Your task to perform on an android device: toggle sleep mode Image 0: 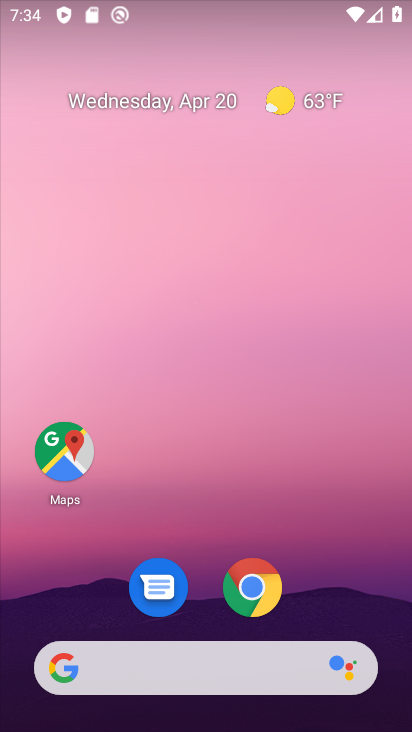
Step 0: drag from (309, 7) to (323, 672)
Your task to perform on an android device: toggle sleep mode Image 1: 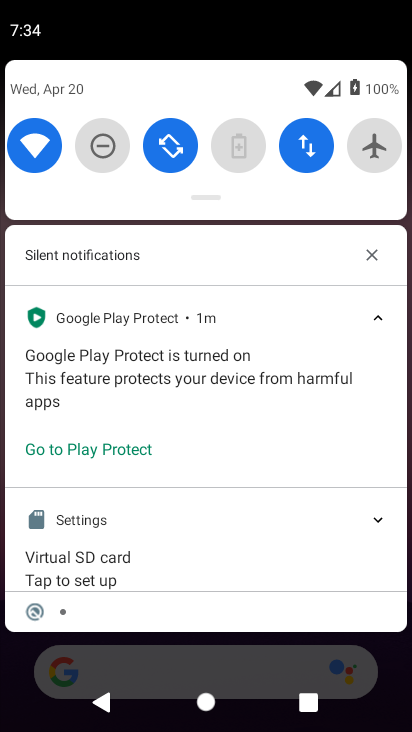
Step 1: drag from (281, 78) to (328, 533)
Your task to perform on an android device: toggle sleep mode Image 2: 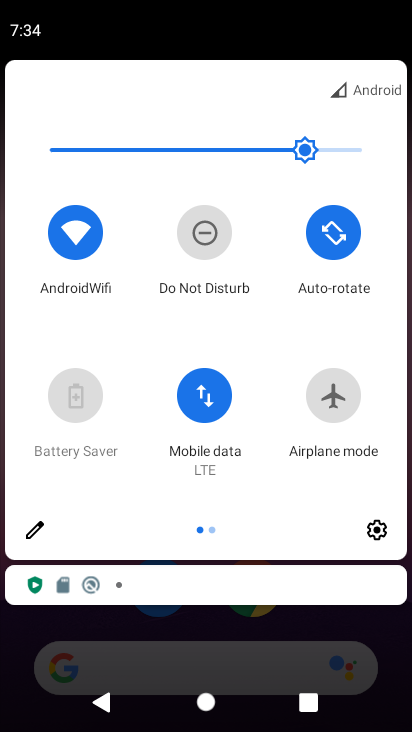
Step 2: click (377, 527)
Your task to perform on an android device: toggle sleep mode Image 3: 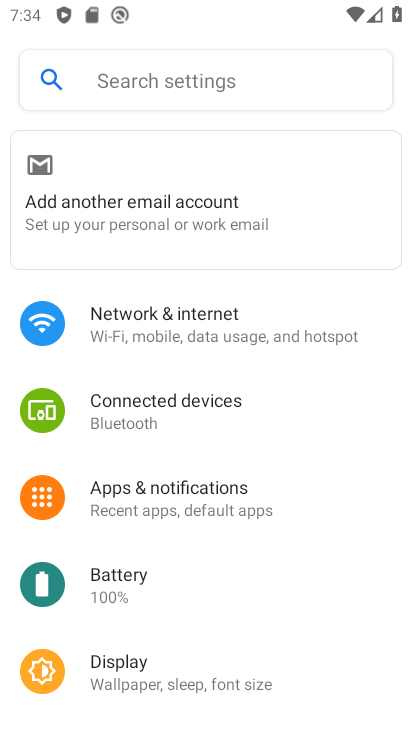
Step 3: task complete